Your task to perform on an android device: Open Google Image 0: 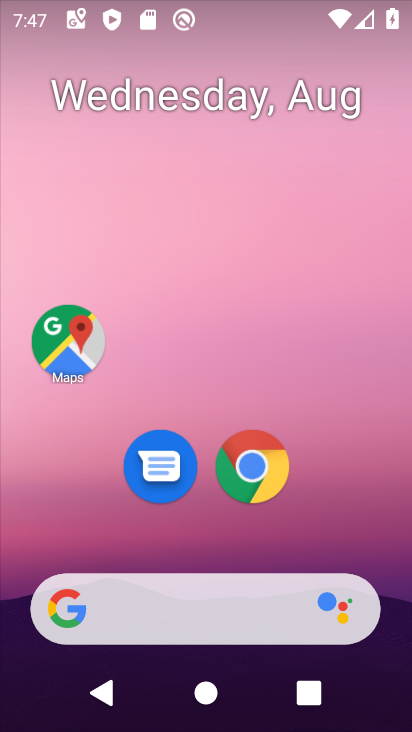
Step 0: drag from (345, 515) to (381, 103)
Your task to perform on an android device: Open Google Image 1: 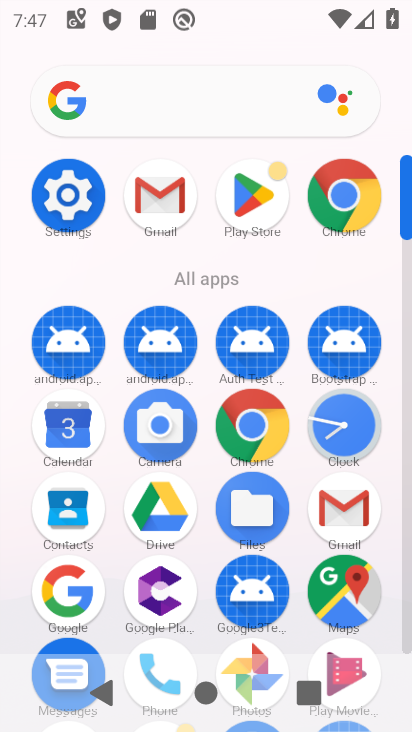
Step 1: click (73, 592)
Your task to perform on an android device: Open Google Image 2: 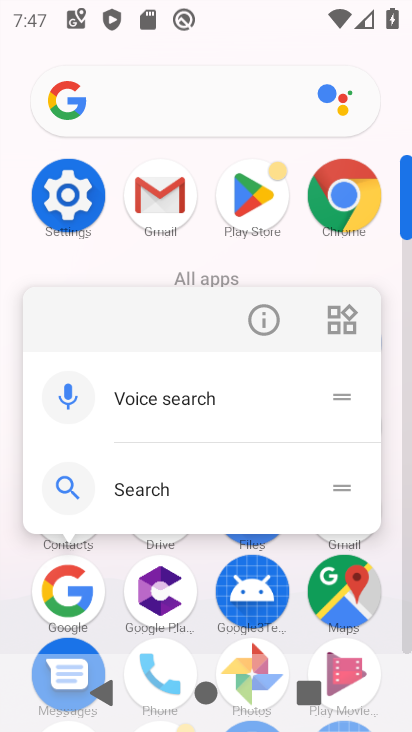
Step 2: click (69, 596)
Your task to perform on an android device: Open Google Image 3: 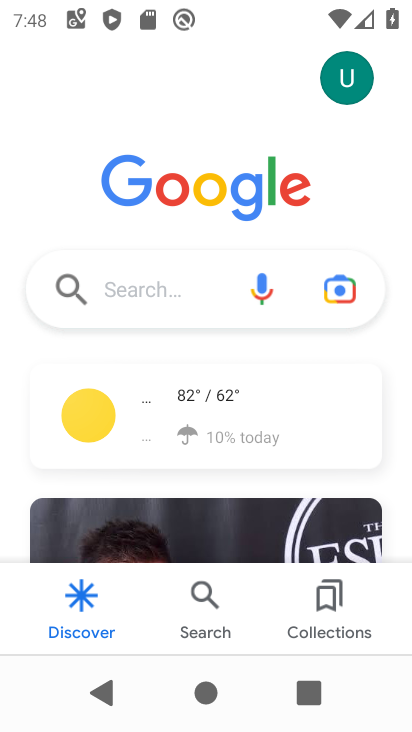
Step 3: task complete